Your task to perform on an android device: Open Google Chrome and click the shortcut for Amazon.com Image 0: 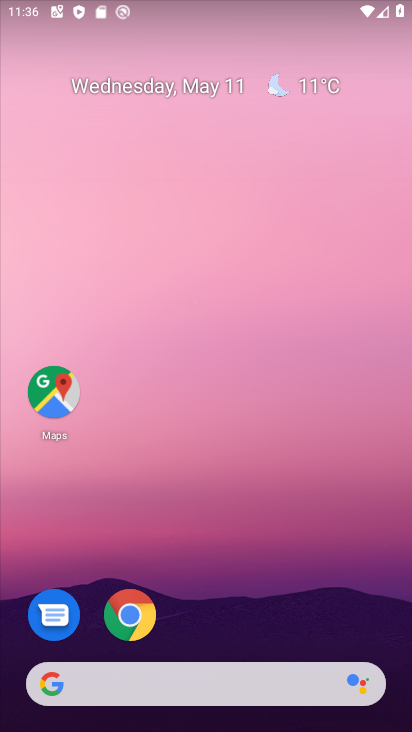
Step 0: click (127, 614)
Your task to perform on an android device: Open Google Chrome and click the shortcut for Amazon.com Image 1: 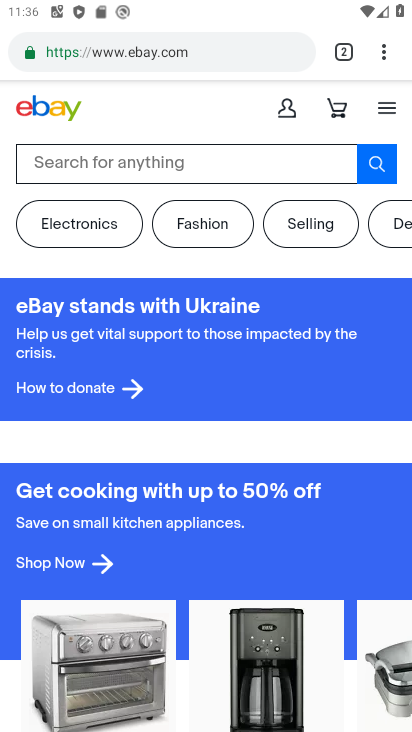
Step 1: click (384, 45)
Your task to perform on an android device: Open Google Chrome and click the shortcut for Amazon.com Image 2: 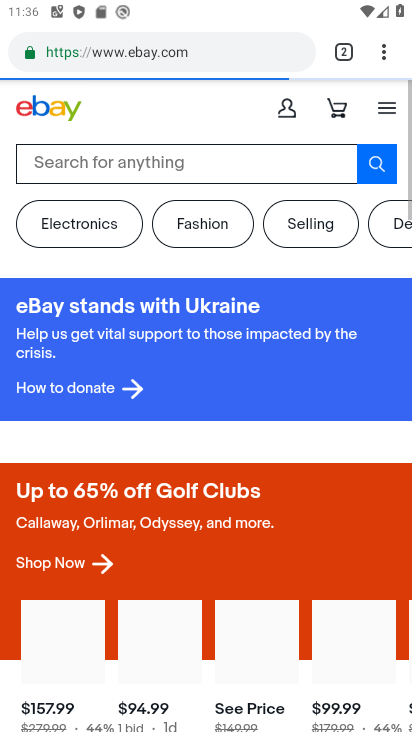
Step 2: click (381, 44)
Your task to perform on an android device: Open Google Chrome and click the shortcut for Amazon.com Image 3: 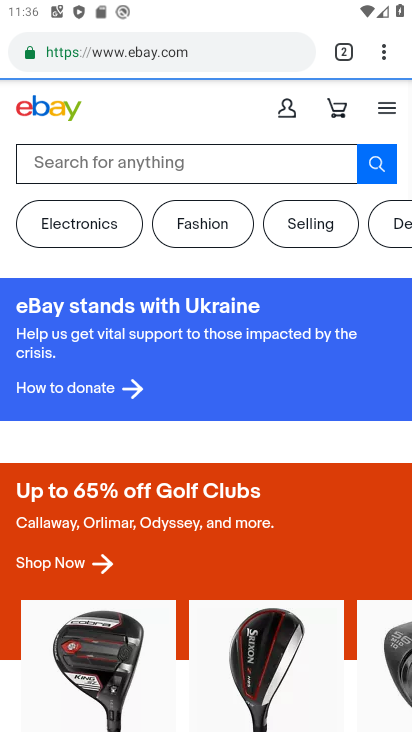
Step 3: drag from (382, 48) to (238, 110)
Your task to perform on an android device: Open Google Chrome and click the shortcut for Amazon.com Image 4: 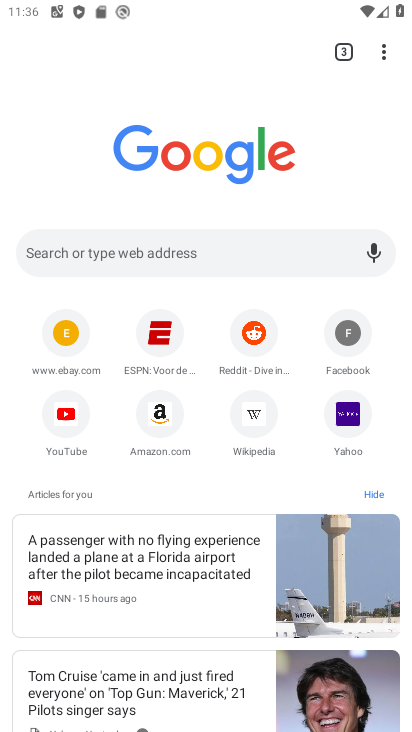
Step 4: click (170, 402)
Your task to perform on an android device: Open Google Chrome and click the shortcut for Amazon.com Image 5: 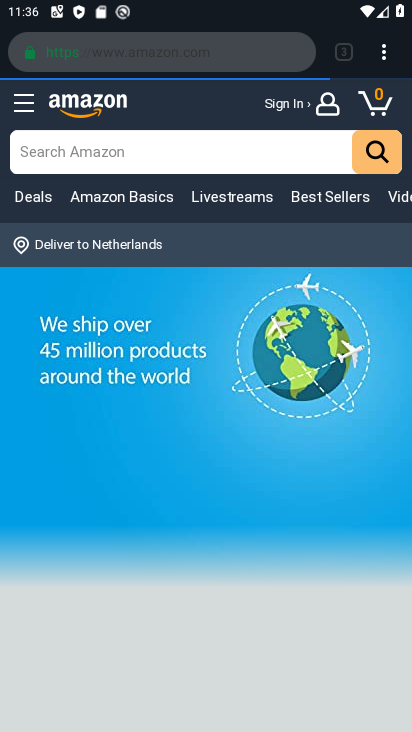
Step 5: task complete